Your task to perform on an android device: When is my next appointment? Image 0: 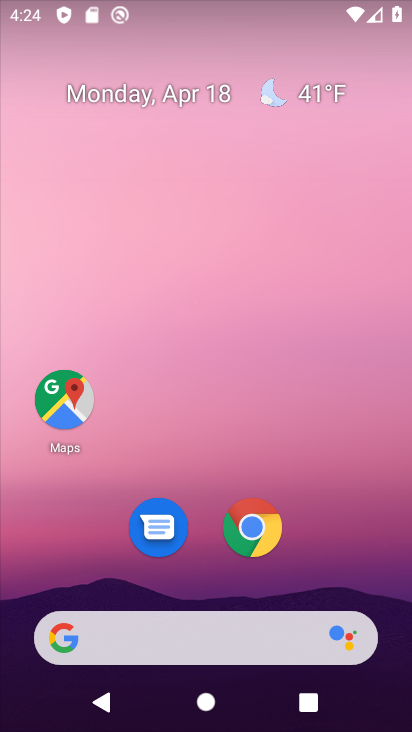
Step 0: drag from (339, 517) to (350, 169)
Your task to perform on an android device: When is my next appointment? Image 1: 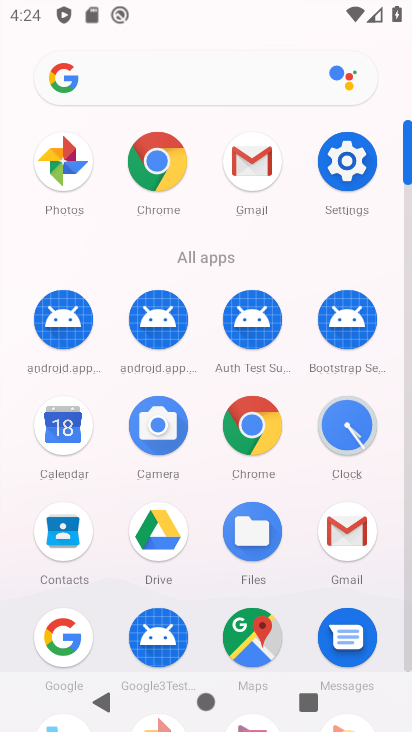
Step 1: click (82, 426)
Your task to perform on an android device: When is my next appointment? Image 2: 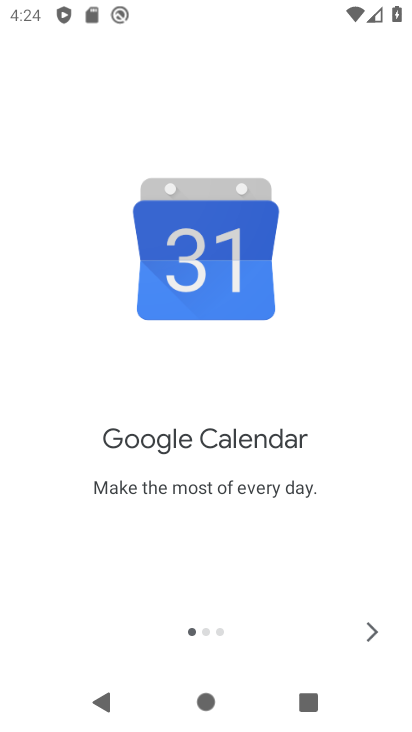
Step 2: click (374, 629)
Your task to perform on an android device: When is my next appointment? Image 3: 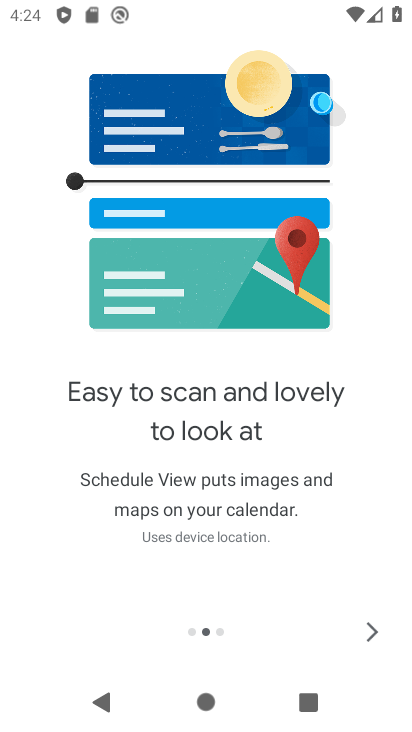
Step 3: click (374, 629)
Your task to perform on an android device: When is my next appointment? Image 4: 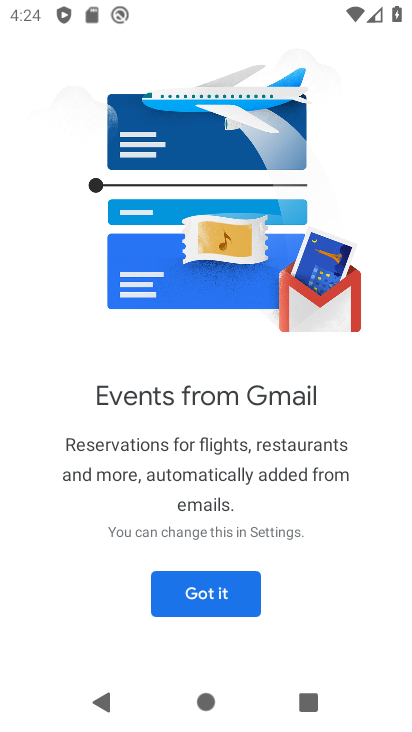
Step 4: click (215, 583)
Your task to perform on an android device: When is my next appointment? Image 5: 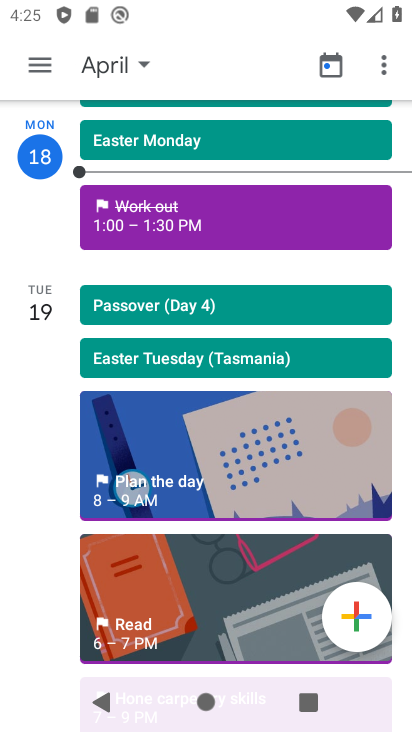
Step 5: task complete